Your task to perform on an android device: Open settings on Google Maps Image 0: 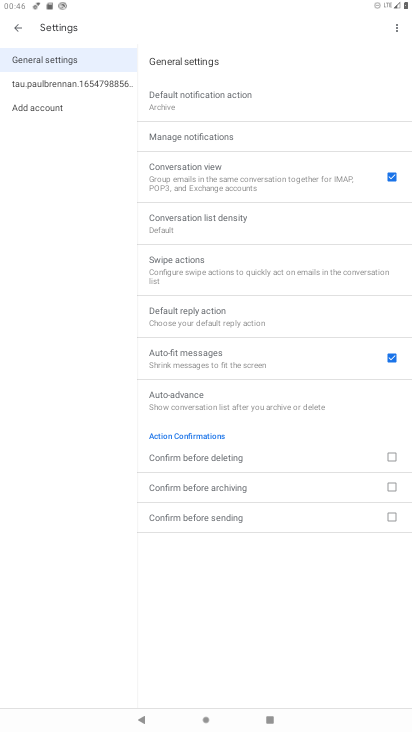
Step 0: press home button
Your task to perform on an android device: Open settings on Google Maps Image 1: 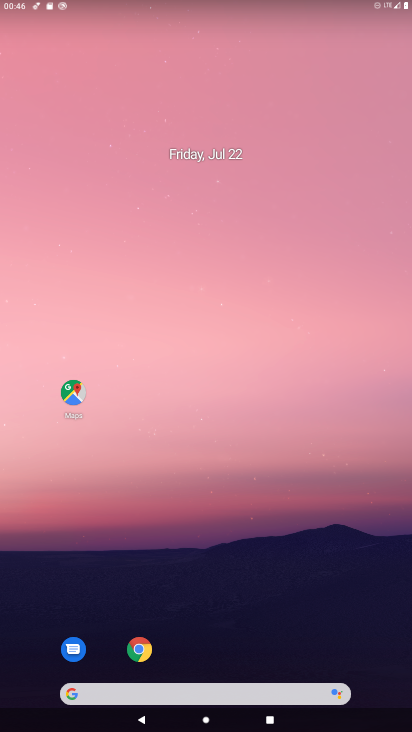
Step 1: click (231, 727)
Your task to perform on an android device: Open settings on Google Maps Image 2: 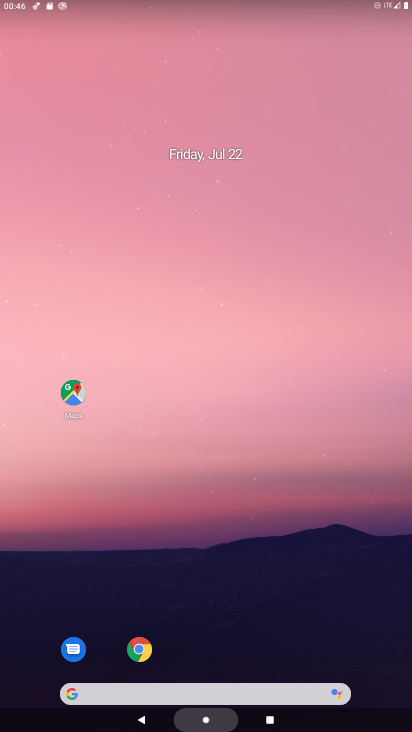
Step 2: click (228, 65)
Your task to perform on an android device: Open settings on Google Maps Image 3: 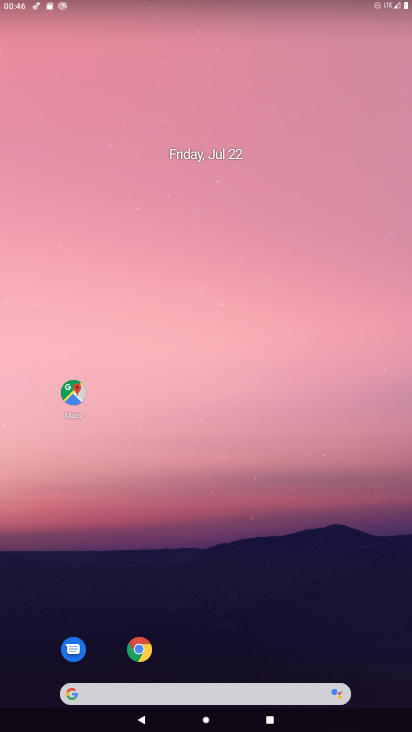
Step 3: click (71, 392)
Your task to perform on an android device: Open settings on Google Maps Image 4: 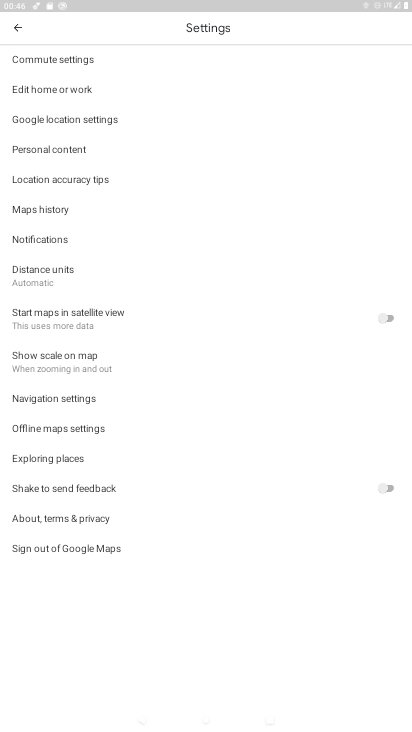
Step 4: task complete